Your task to perform on an android device: turn off location Image 0: 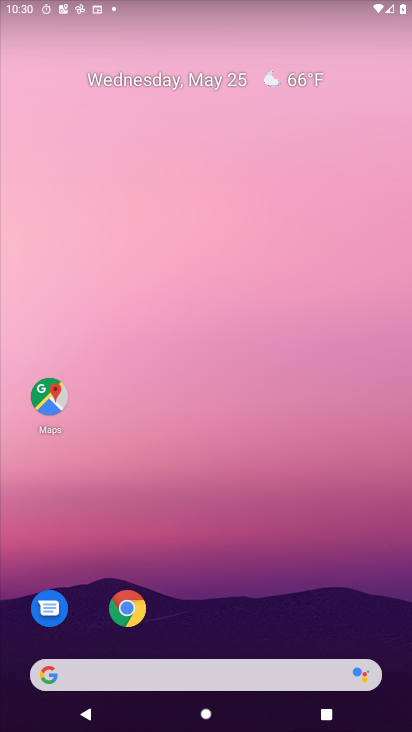
Step 0: drag from (223, 722) to (221, 5)
Your task to perform on an android device: turn off location Image 1: 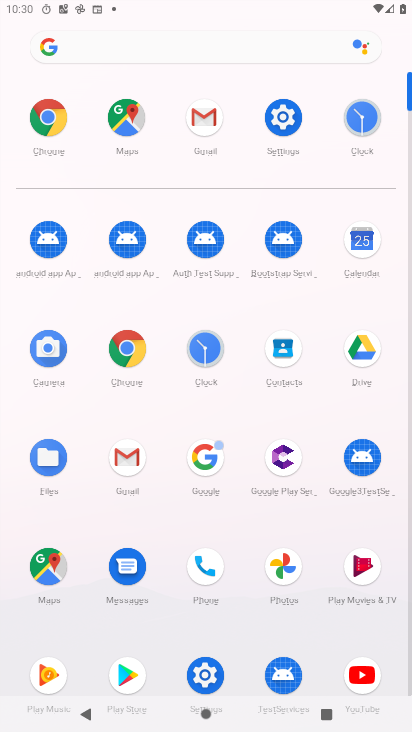
Step 1: click (286, 111)
Your task to perform on an android device: turn off location Image 2: 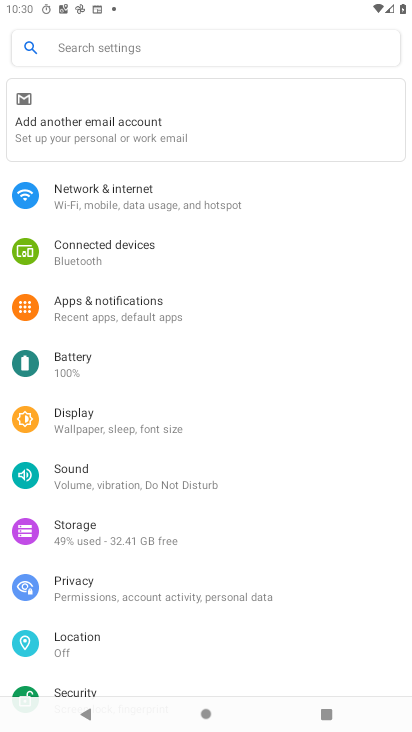
Step 2: click (80, 639)
Your task to perform on an android device: turn off location Image 3: 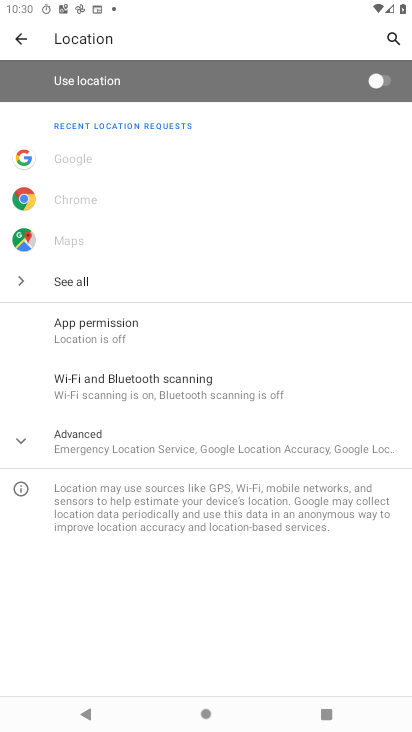
Step 3: task complete